Your task to perform on an android device: see sites visited before in the chrome app Image 0: 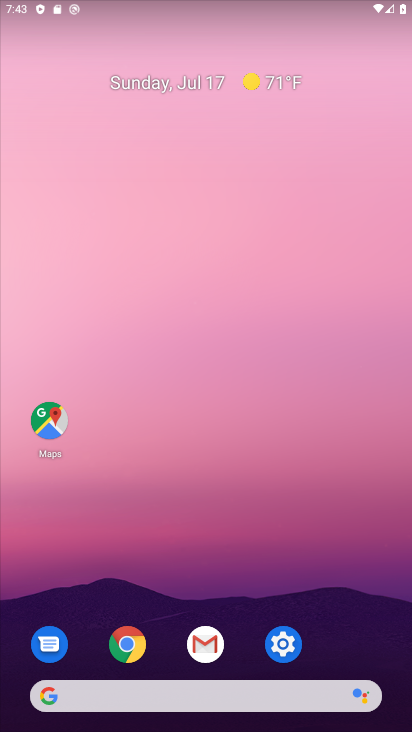
Step 0: click (127, 632)
Your task to perform on an android device: see sites visited before in the chrome app Image 1: 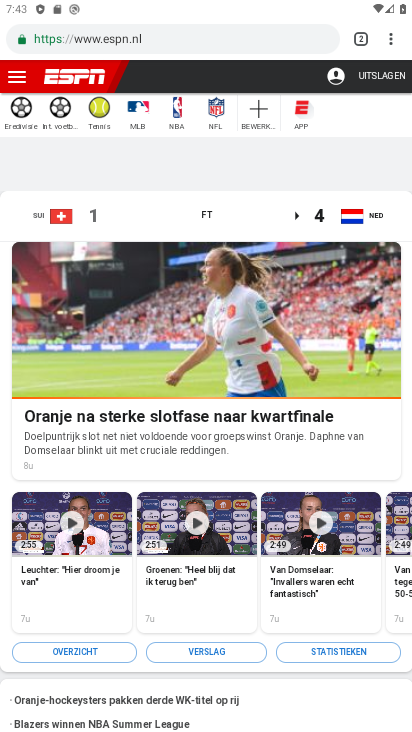
Step 1: click (391, 44)
Your task to perform on an android device: see sites visited before in the chrome app Image 2: 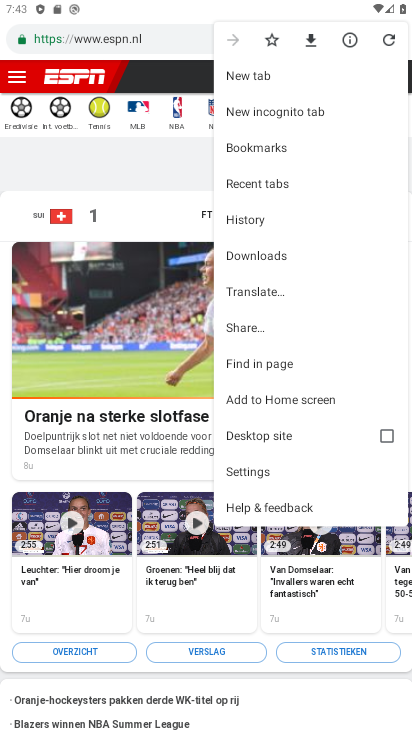
Step 2: click (256, 466)
Your task to perform on an android device: see sites visited before in the chrome app Image 3: 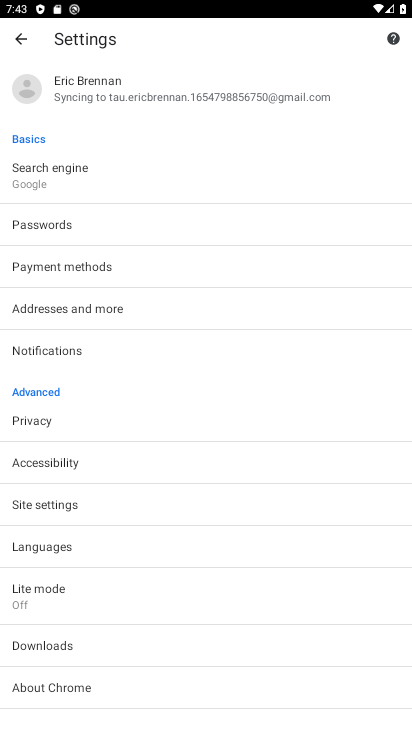
Step 3: click (62, 508)
Your task to perform on an android device: see sites visited before in the chrome app Image 4: 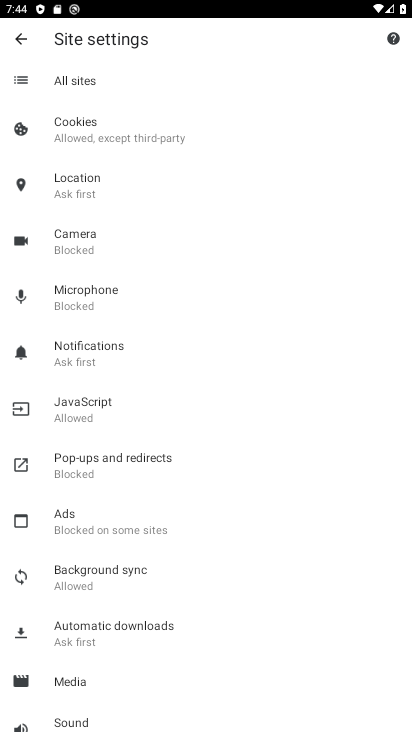
Step 4: click (91, 82)
Your task to perform on an android device: see sites visited before in the chrome app Image 5: 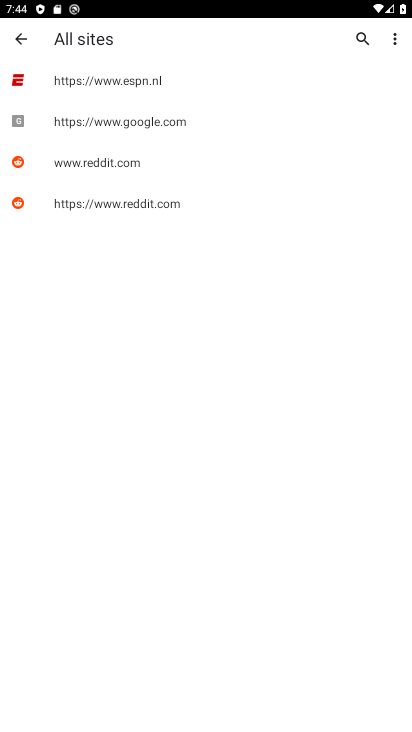
Step 5: task complete